Your task to perform on an android device: When is my next appointment? Image 0: 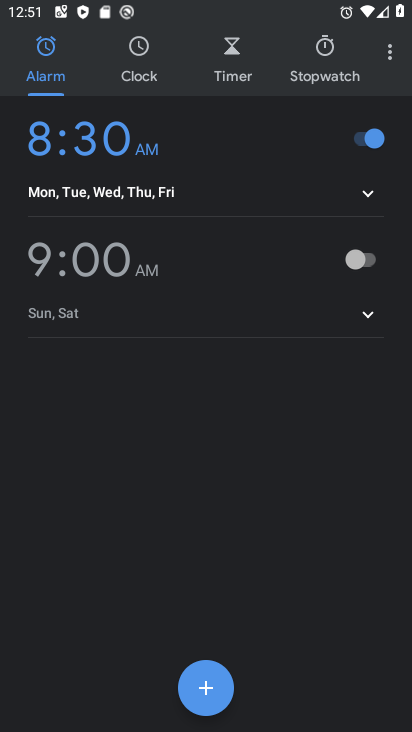
Step 0: press home button
Your task to perform on an android device: When is my next appointment? Image 1: 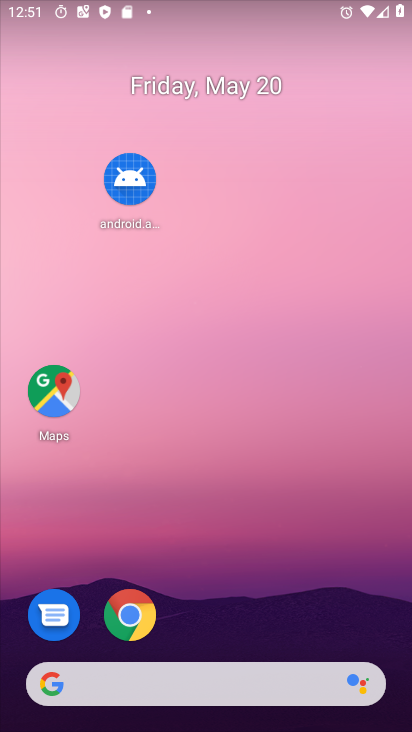
Step 1: drag from (339, 609) to (298, 169)
Your task to perform on an android device: When is my next appointment? Image 2: 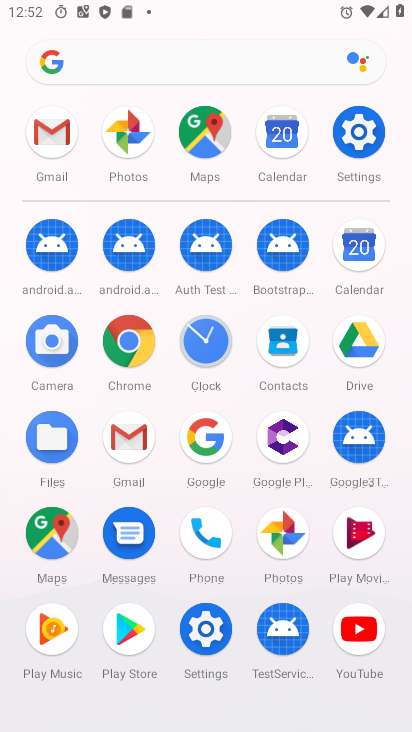
Step 2: click (357, 259)
Your task to perform on an android device: When is my next appointment? Image 3: 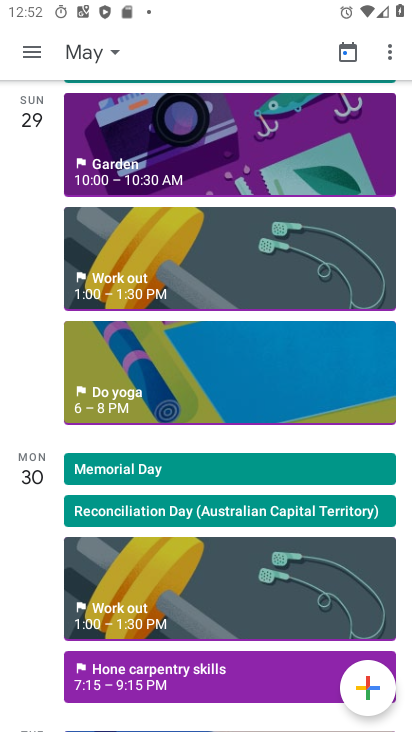
Step 3: task complete